Your task to perform on an android device: visit the assistant section in the google photos Image 0: 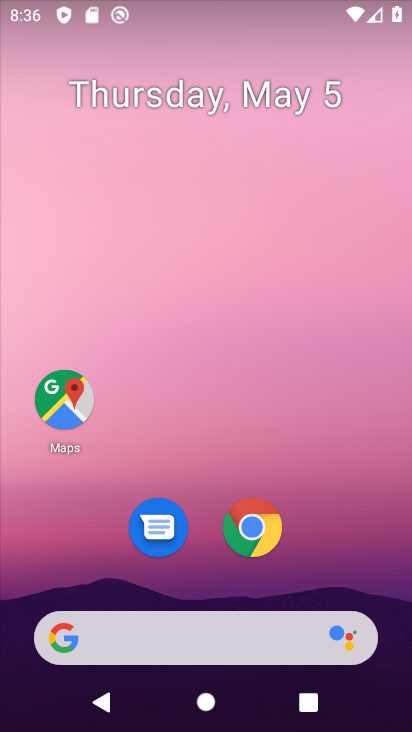
Step 0: drag from (341, 580) to (183, 0)
Your task to perform on an android device: visit the assistant section in the google photos Image 1: 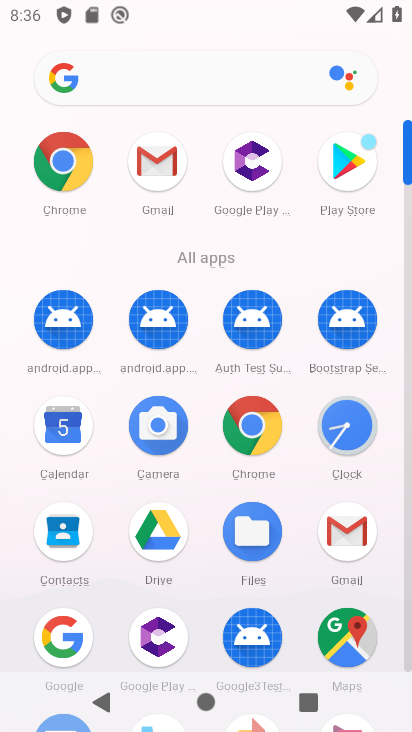
Step 1: drag from (201, 634) to (195, 139)
Your task to perform on an android device: visit the assistant section in the google photos Image 2: 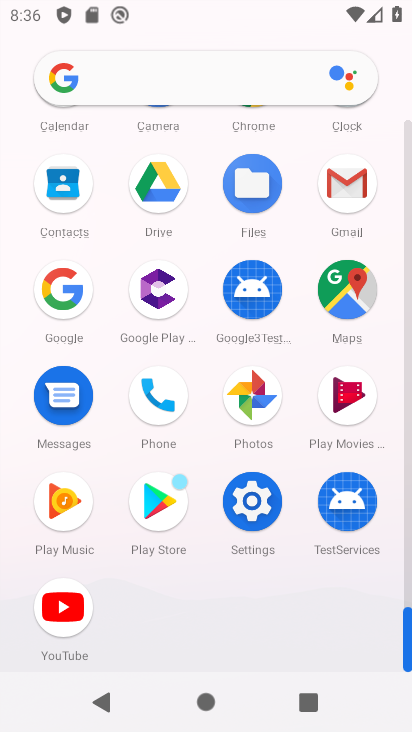
Step 2: click (250, 397)
Your task to perform on an android device: visit the assistant section in the google photos Image 3: 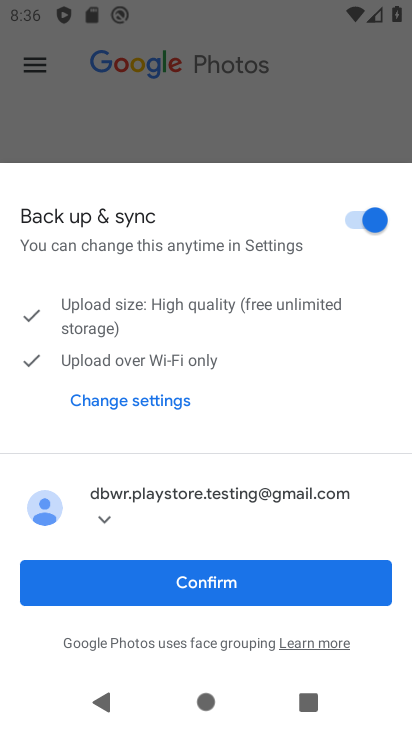
Step 3: click (215, 587)
Your task to perform on an android device: visit the assistant section in the google photos Image 4: 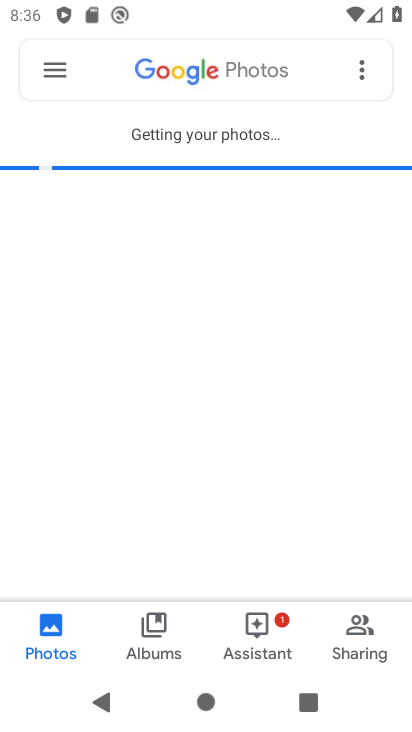
Step 4: click (259, 625)
Your task to perform on an android device: visit the assistant section in the google photos Image 5: 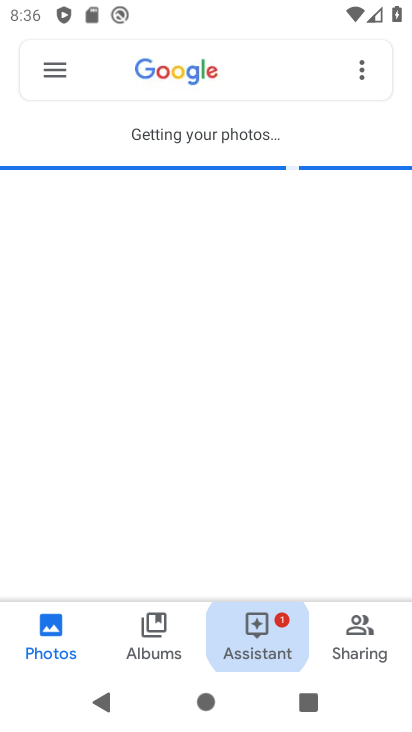
Step 5: click (259, 625)
Your task to perform on an android device: visit the assistant section in the google photos Image 6: 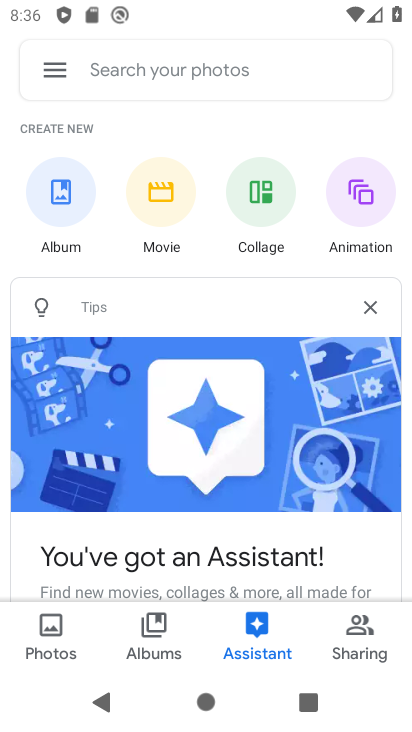
Step 6: task complete